Your task to perform on an android device: Open settings Image 0: 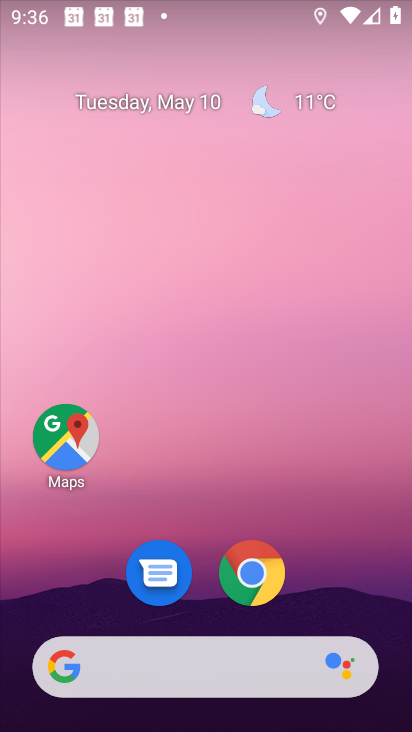
Step 0: drag from (318, 487) to (299, 66)
Your task to perform on an android device: Open settings Image 1: 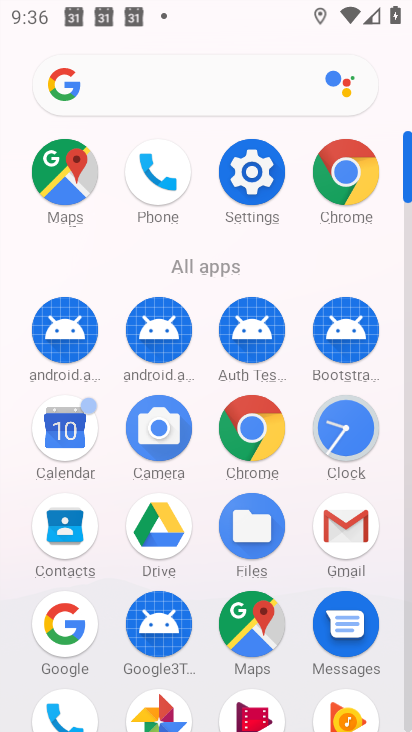
Step 1: click (259, 191)
Your task to perform on an android device: Open settings Image 2: 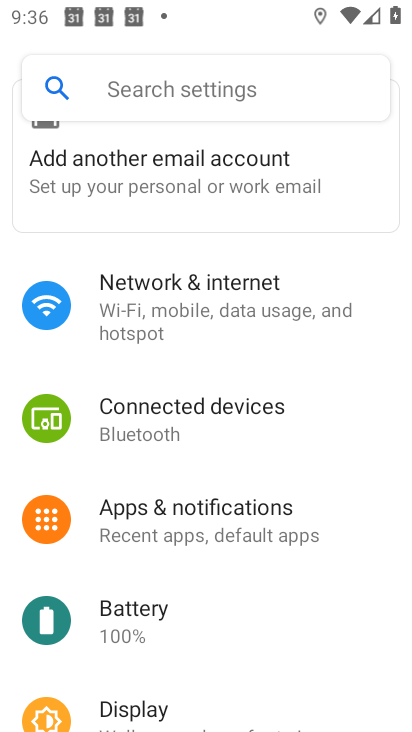
Step 2: task complete